Your task to perform on an android device: Open ESPN.com Image 0: 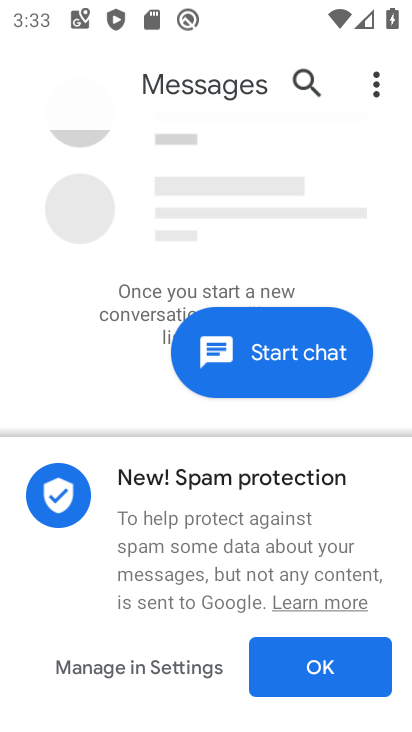
Step 0: press home button
Your task to perform on an android device: Open ESPN.com Image 1: 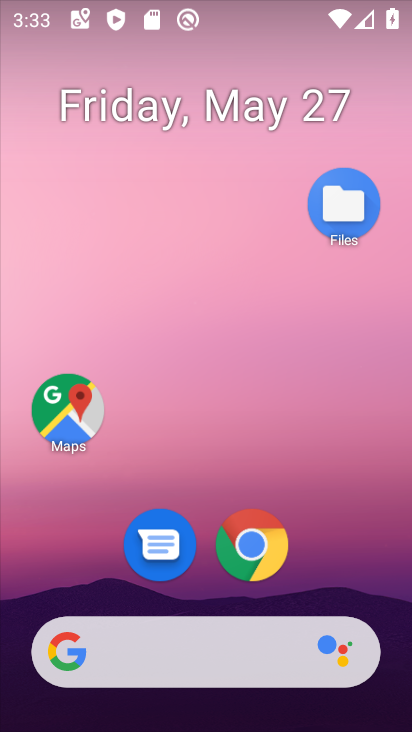
Step 1: click (253, 569)
Your task to perform on an android device: Open ESPN.com Image 2: 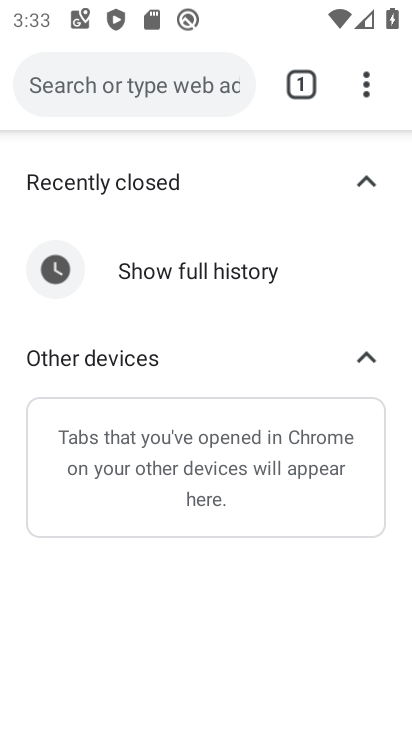
Step 2: drag from (361, 92) to (246, 161)
Your task to perform on an android device: Open ESPN.com Image 3: 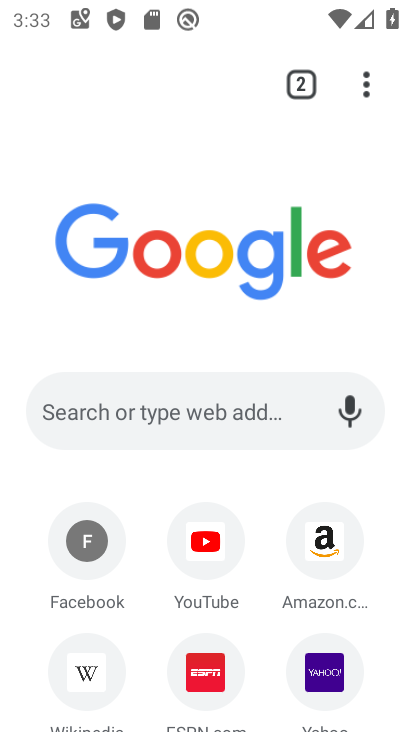
Step 3: drag from (246, 490) to (330, 172)
Your task to perform on an android device: Open ESPN.com Image 4: 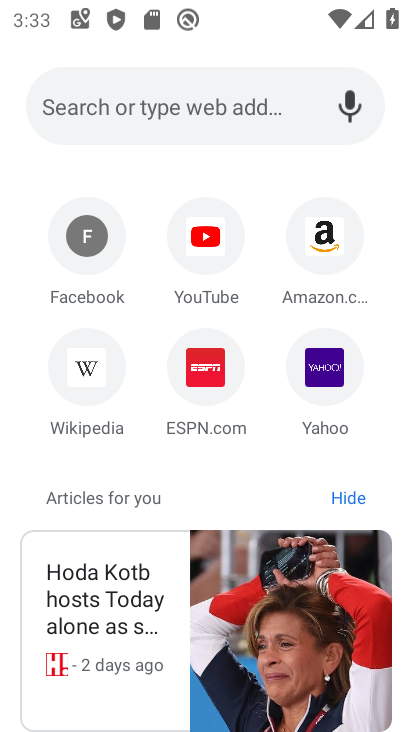
Step 4: click (204, 367)
Your task to perform on an android device: Open ESPN.com Image 5: 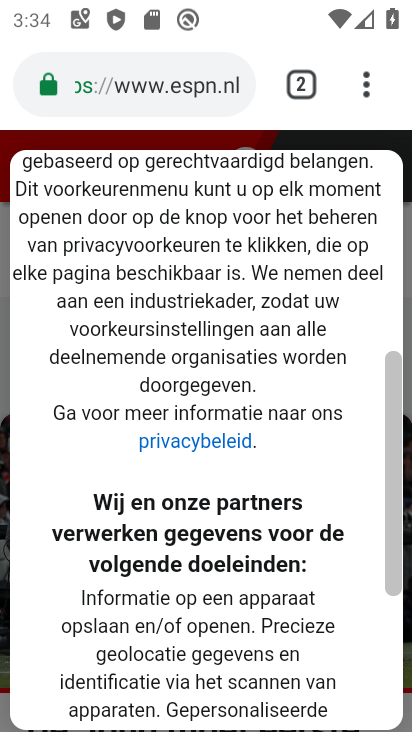
Step 5: drag from (139, 660) to (340, 161)
Your task to perform on an android device: Open ESPN.com Image 6: 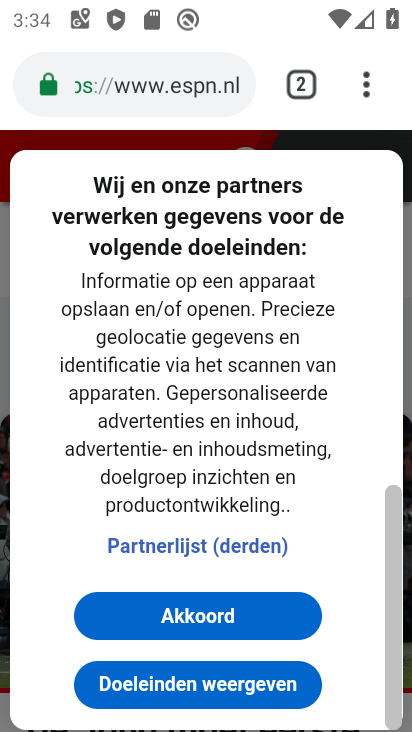
Step 6: click (180, 609)
Your task to perform on an android device: Open ESPN.com Image 7: 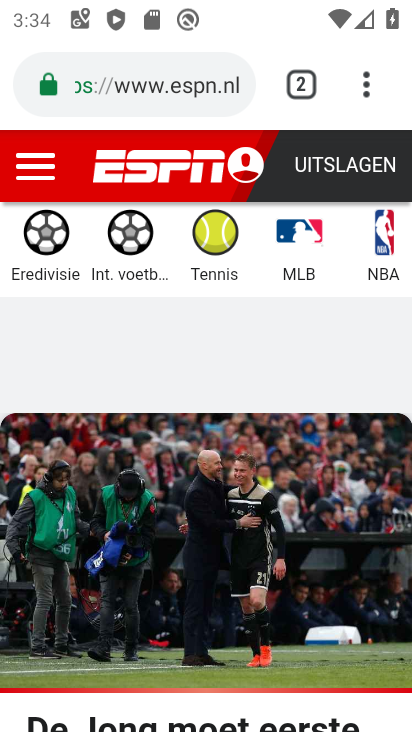
Step 7: task complete